Your task to perform on an android device: Open accessibility settings Image 0: 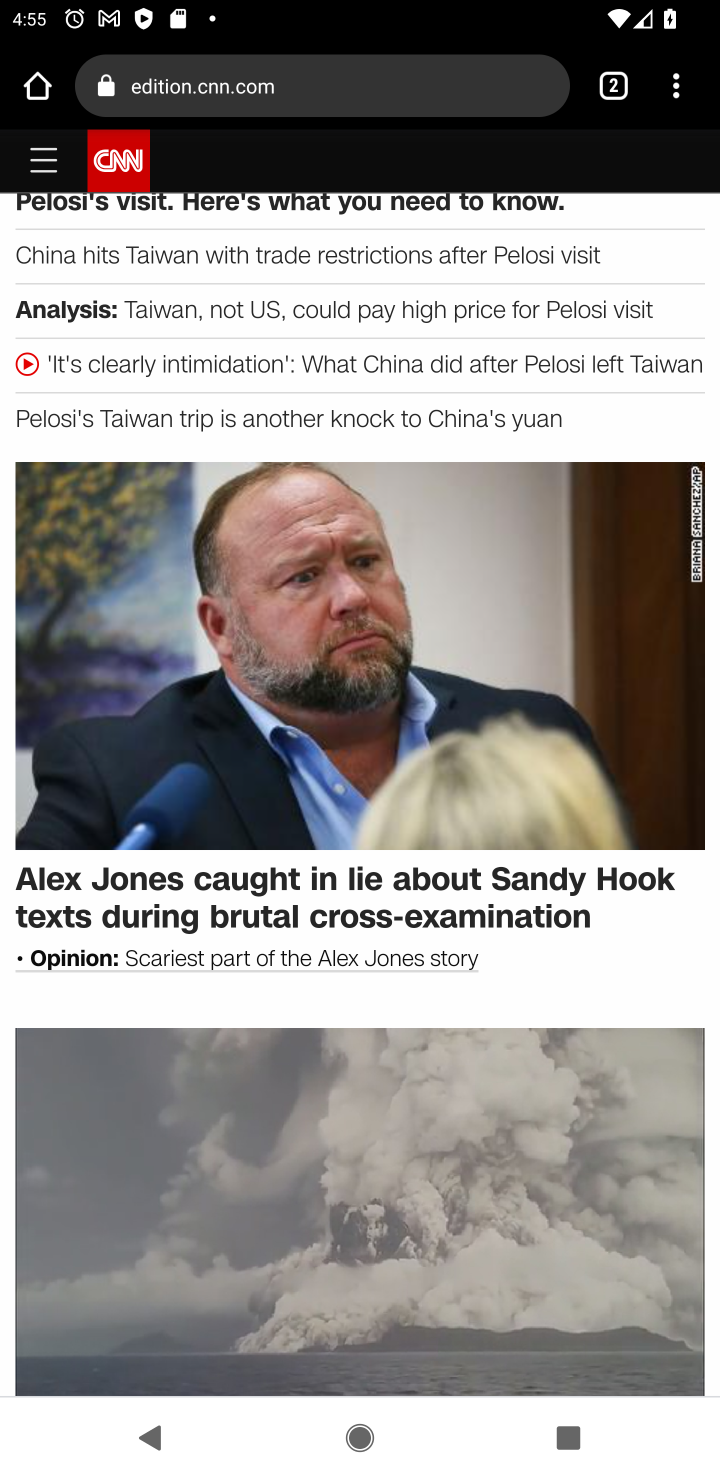
Step 0: press home button
Your task to perform on an android device: Open accessibility settings Image 1: 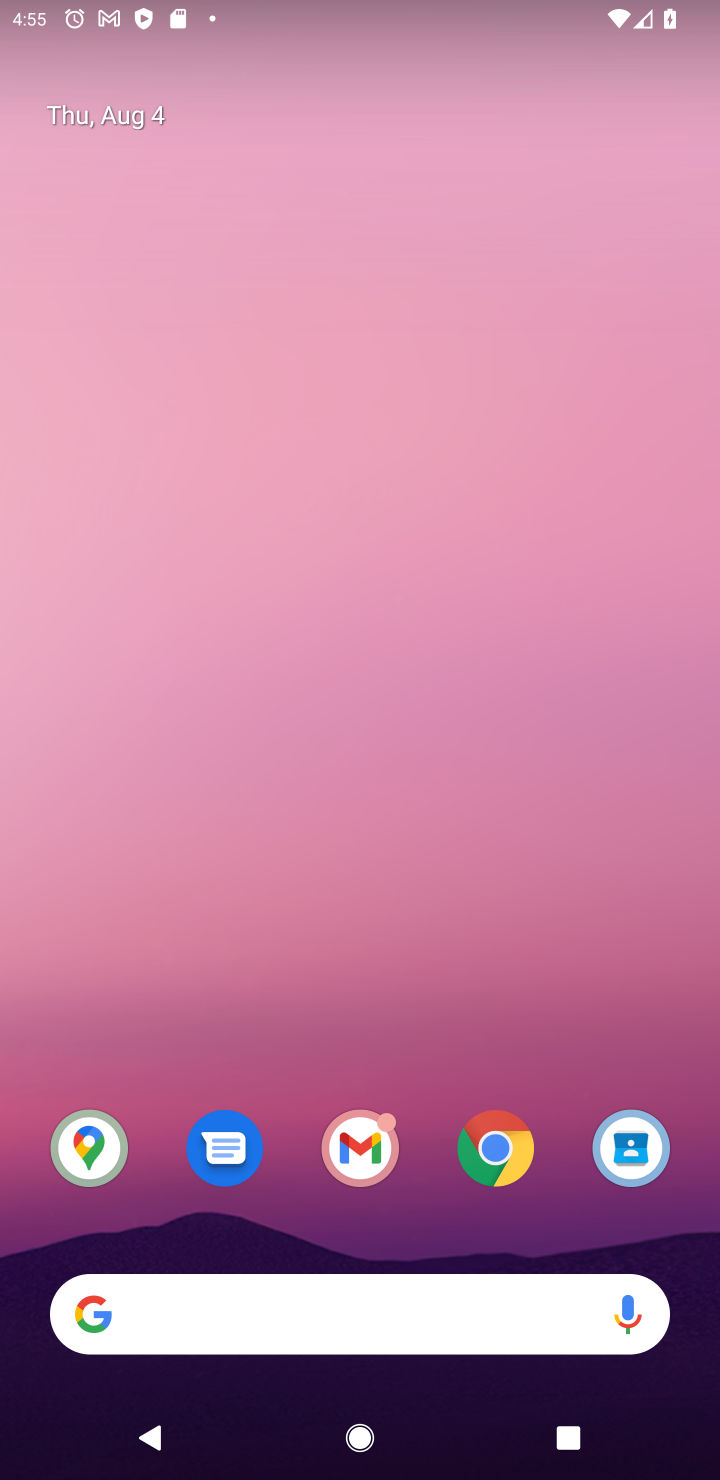
Step 1: drag from (560, 1209) to (533, 357)
Your task to perform on an android device: Open accessibility settings Image 2: 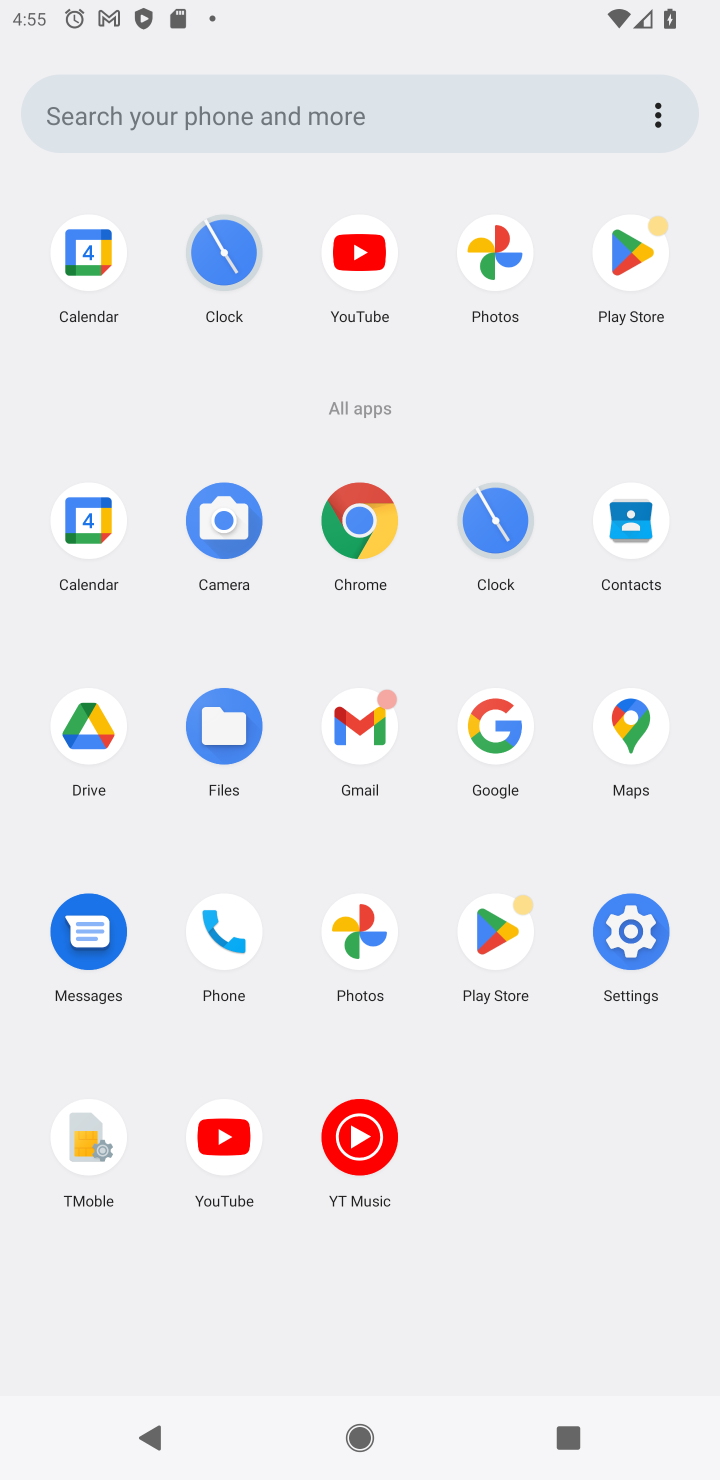
Step 2: click (630, 933)
Your task to perform on an android device: Open accessibility settings Image 3: 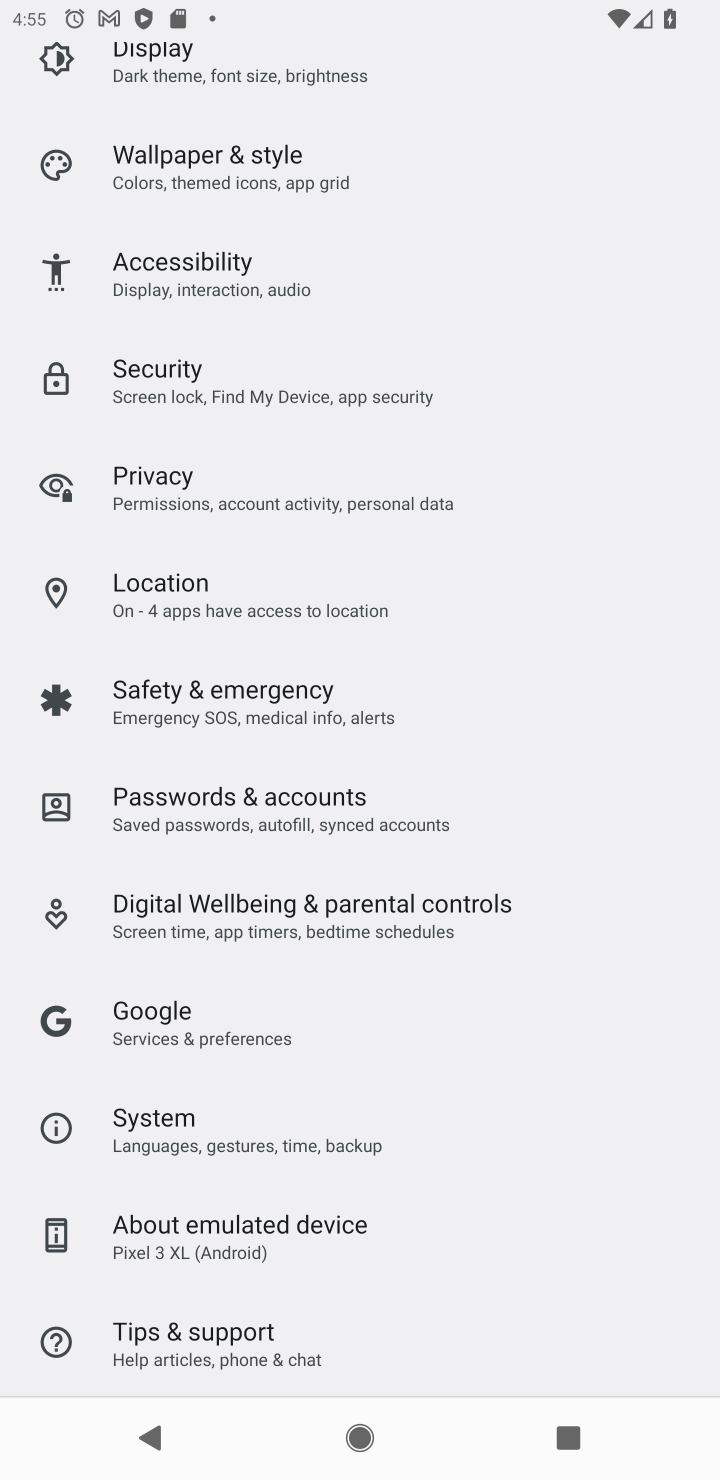
Step 3: drag from (581, 622) to (578, 1150)
Your task to perform on an android device: Open accessibility settings Image 4: 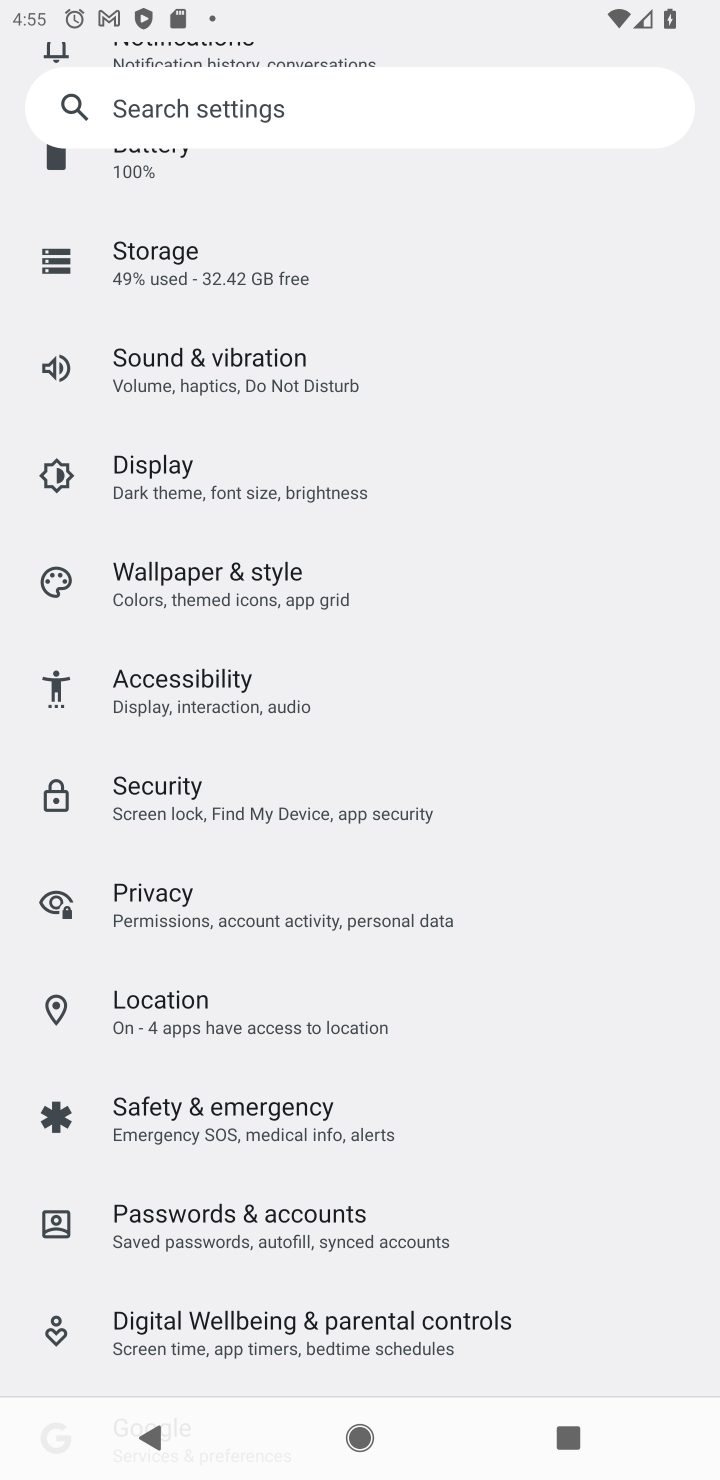
Step 4: click (148, 680)
Your task to perform on an android device: Open accessibility settings Image 5: 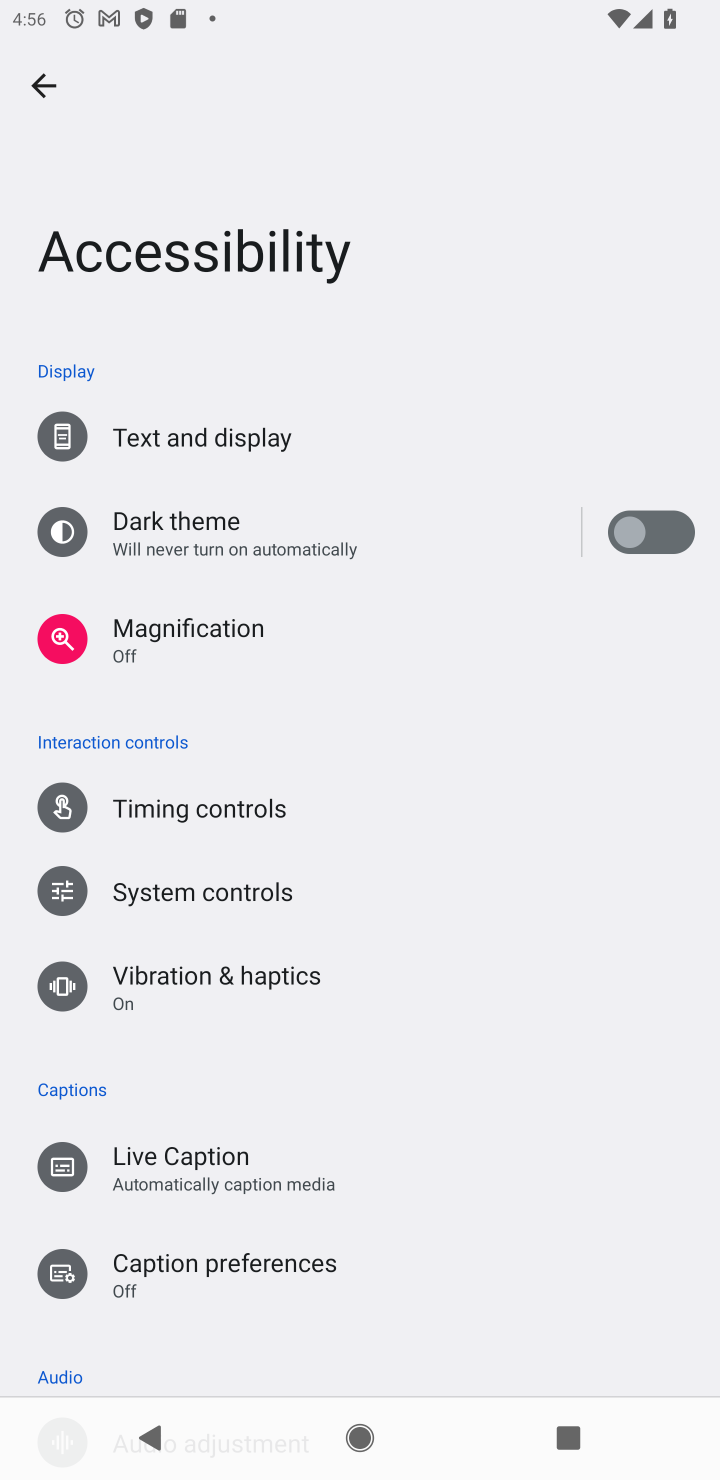
Step 5: task complete